Your task to perform on an android device: Open my contact list Image 0: 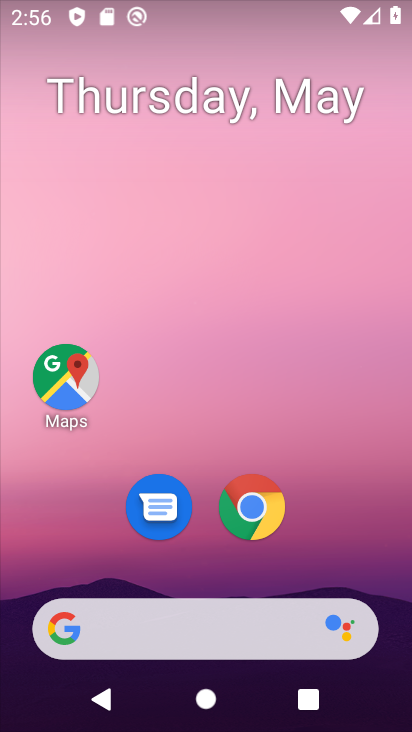
Step 0: drag from (333, 503) to (379, 117)
Your task to perform on an android device: Open my contact list Image 1: 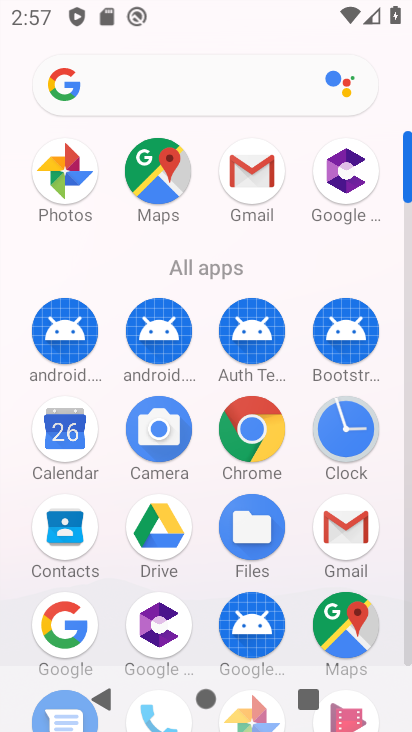
Step 1: click (44, 524)
Your task to perform on an android device: Open my contact list Image 2: 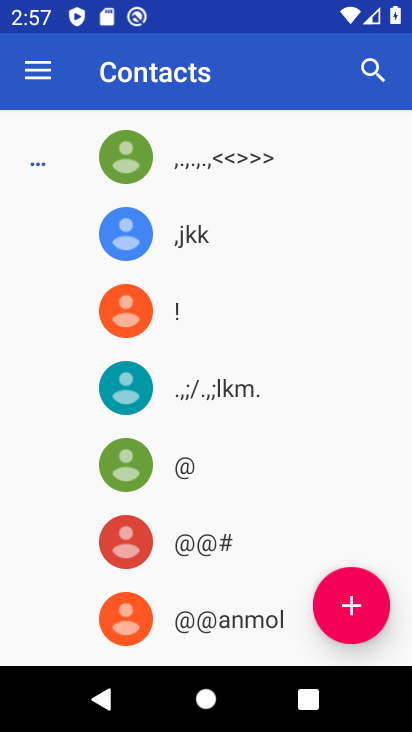
Step 2: task complete